Your task to perform on an android device: all mails in gmail Image 0: 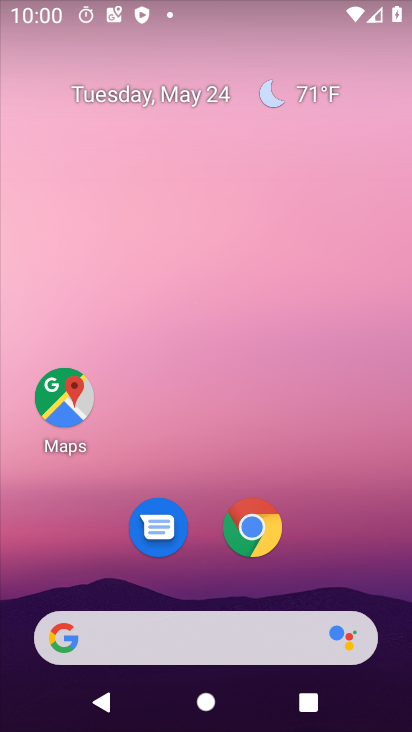
Step 0: drag from (208, 563) to (209, 72)
Your task to perform on an android device: all mails in gmail Image 1: 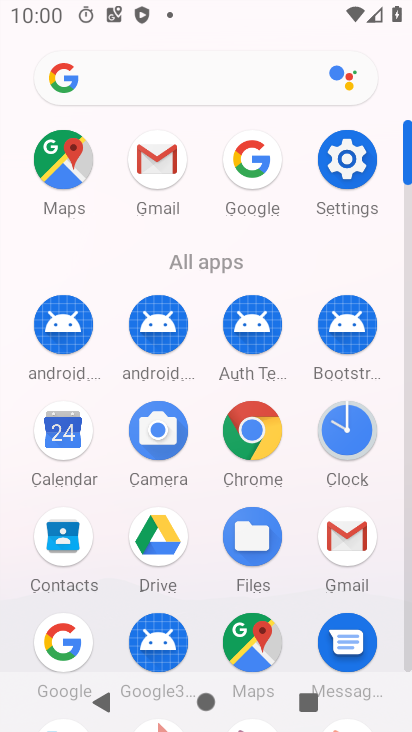
Step 1: click (155, 155)
Your task to perform on an android device: all mails in gmail Image 2: 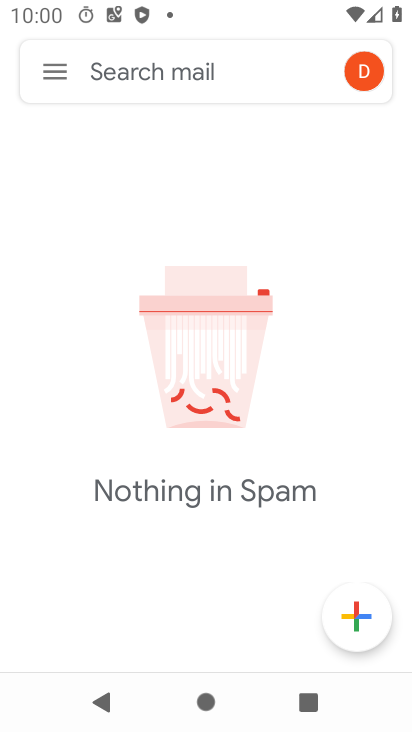
Step 2: click (48, 83)
Your task to perform on an android device: all mails in gmail Image 3: 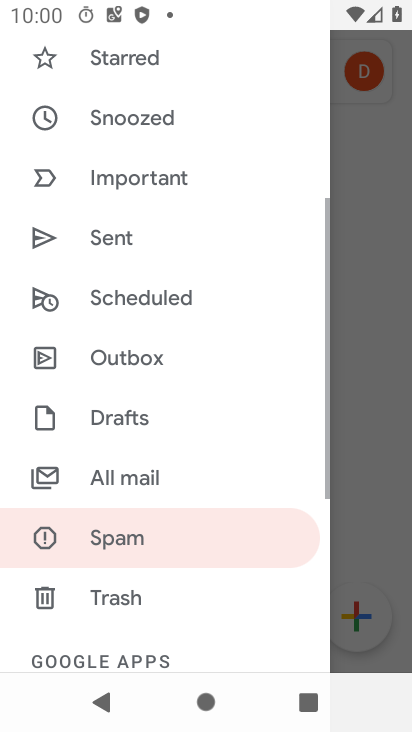
Step 3: click (126, 471)
Your task to perform on an android device: all mails in gmail Image 4: 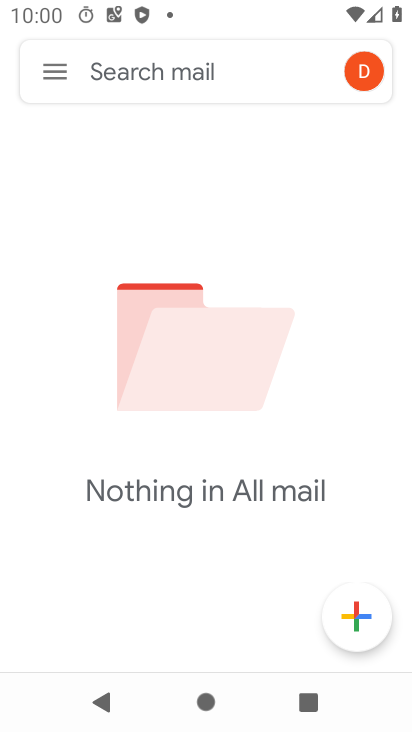
Step 4: task complete